Your task to perform on an android device: set the timer Image 0: 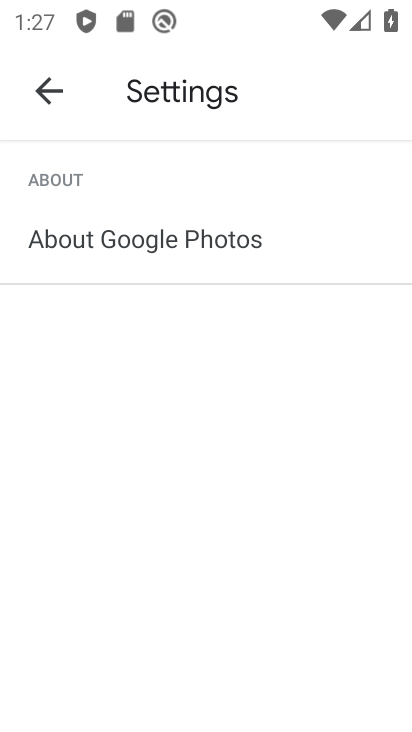
Step 0: press home button
Your task to perform on an android device: set the timer Image 1: 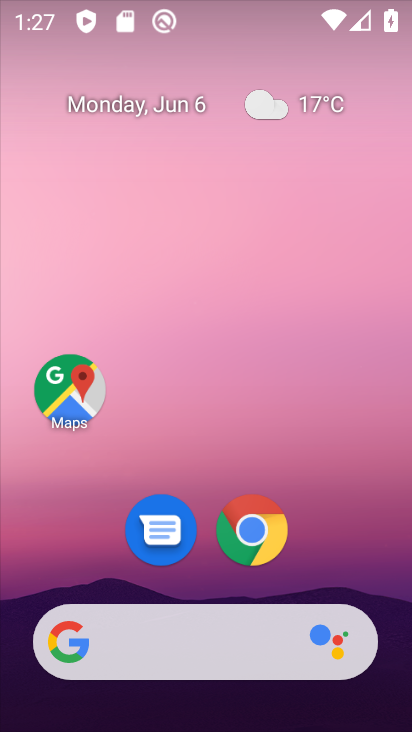
Step 1: drag from (224, 542) to (223, 243)
Your task to perform on an android device: set the timer Image 2: 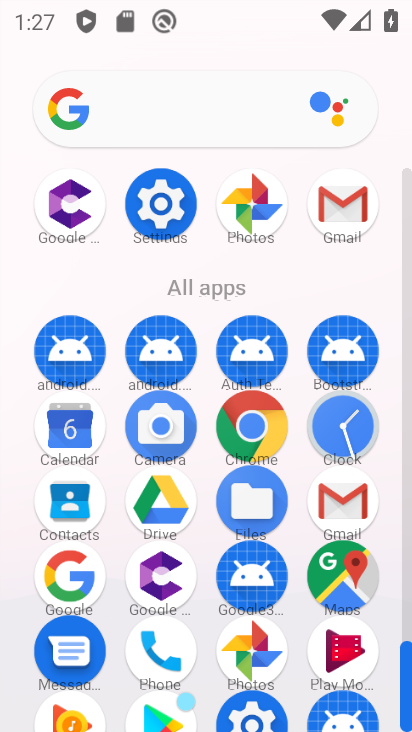
Step 2: click (317, 411)
Your task to perform on an android device: set the timer Image 3: 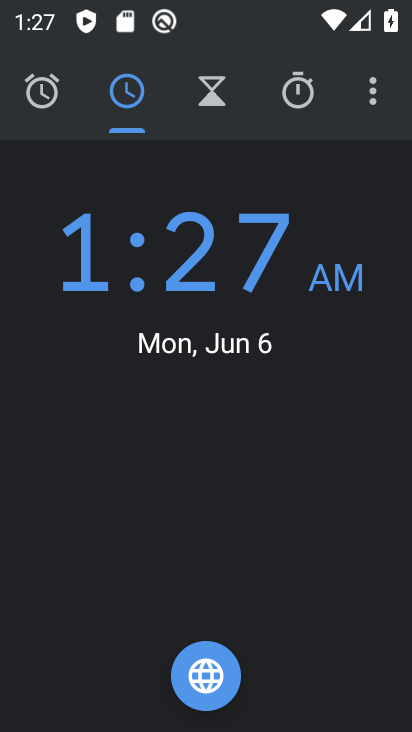
Step 3: click (219, 74)
Your task to perform on an android device: set the timer Image 4: 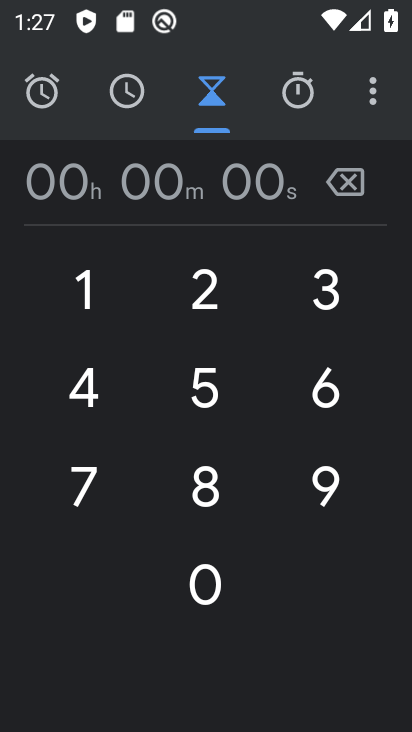
Step 4: click (145, 181)
Your task to perform on an android device: set the timer Image 5: 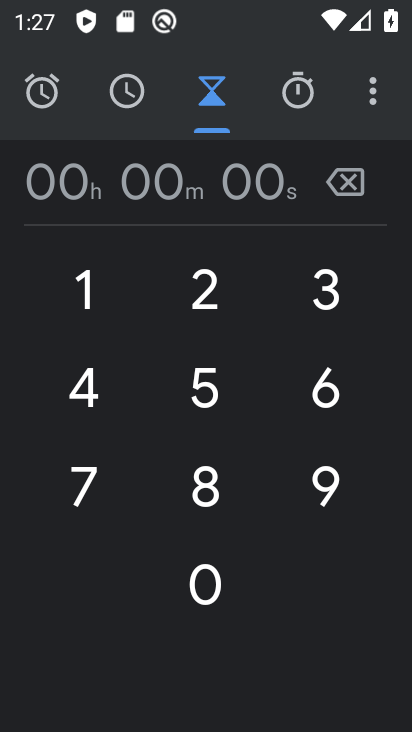
Step 5: type "3456789"
Your task to perform on an android device: set the timer Image 6: 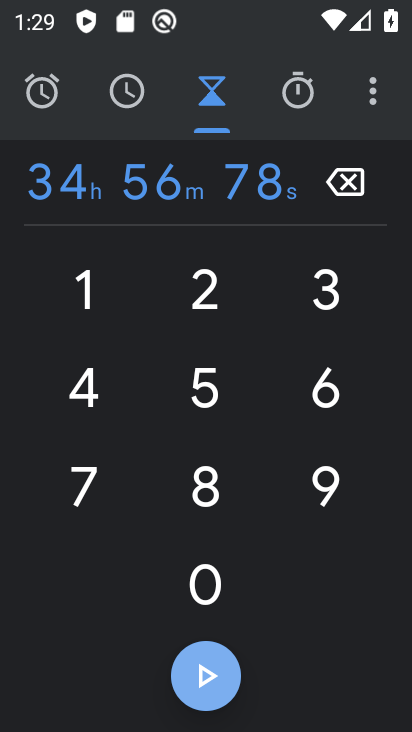
Step 6: task complete